Your task to perform on an android device: Open my contact list Image 0: 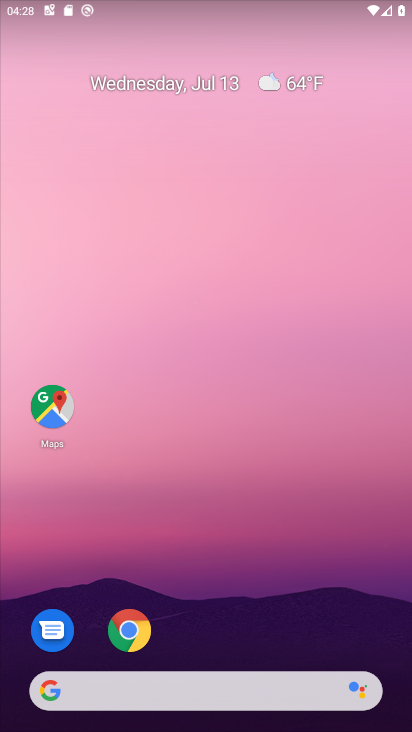
Step 0: drag from (186, 636) to (212, 44)
Your task to perform on an android device: Open my contact list Image 1: 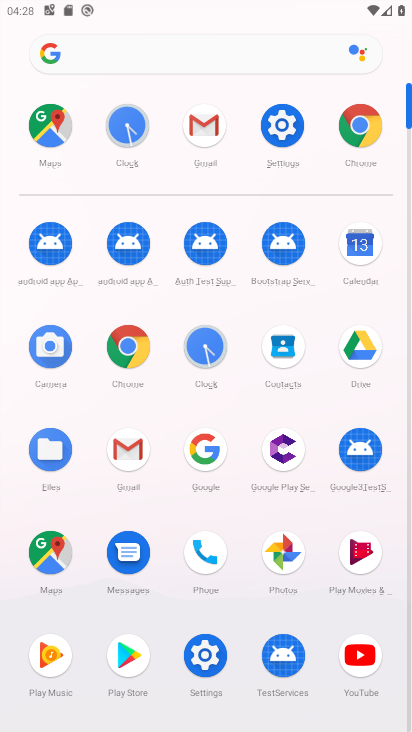
Step 1: click (215, 549)
Your task to perform on an android device: Open my contact list Image 2: 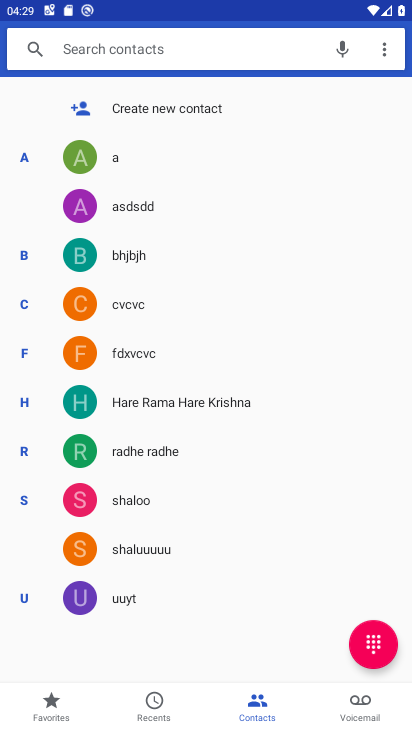
Step 2: task complete